Your task to perform on an android device: Open location settings Image 0: 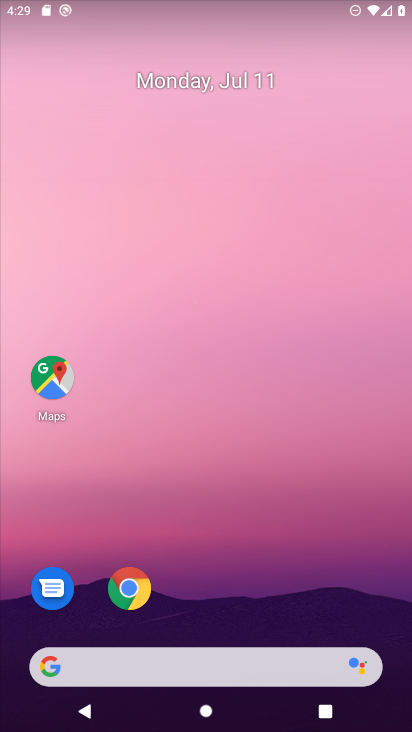
Step 0: press home button
Your task to perform on an android device: Open location settings Image 1: 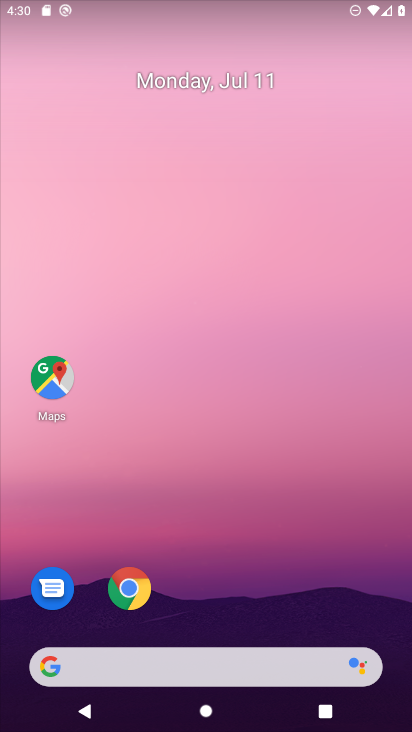
Step 1: drag from (249, 629) to (200, 3)
Your task to perform on an android device: Open location settings Image 2: 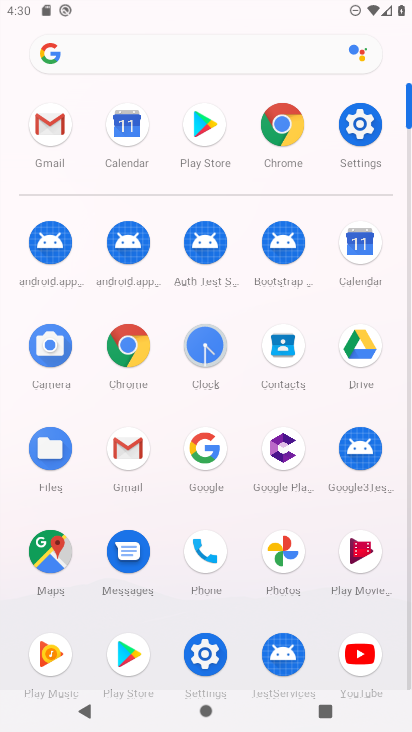
Step 2: click (368, 126)
Your task to perform on an android device: Open location settings Image 3: 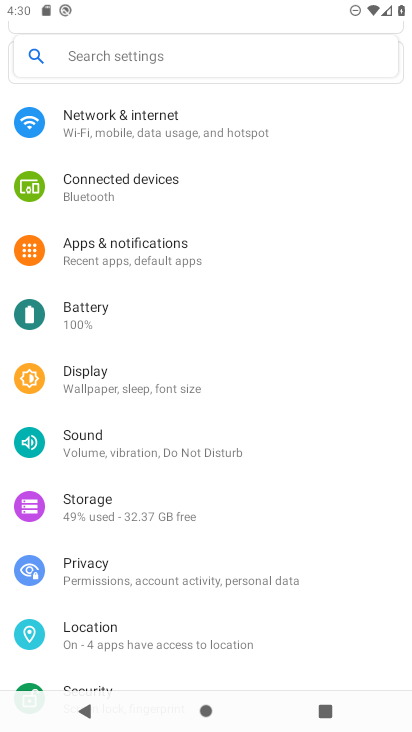
Step 3: click (104, 633)
Your task to perform on an android device: Open location settings Image 4: 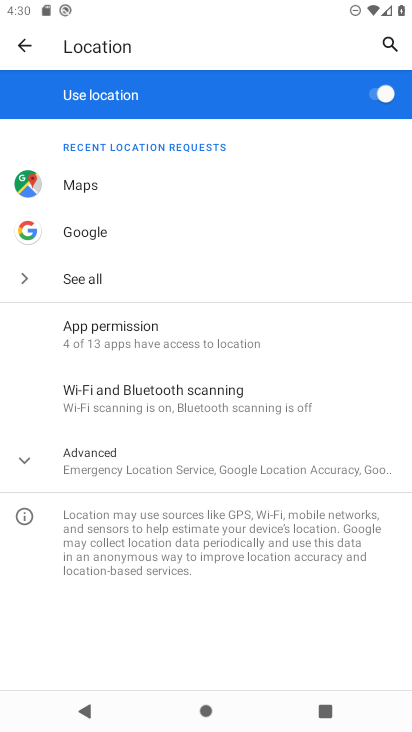
Step 4: task complete